Your task to perform on an android device: check android version Image 0: 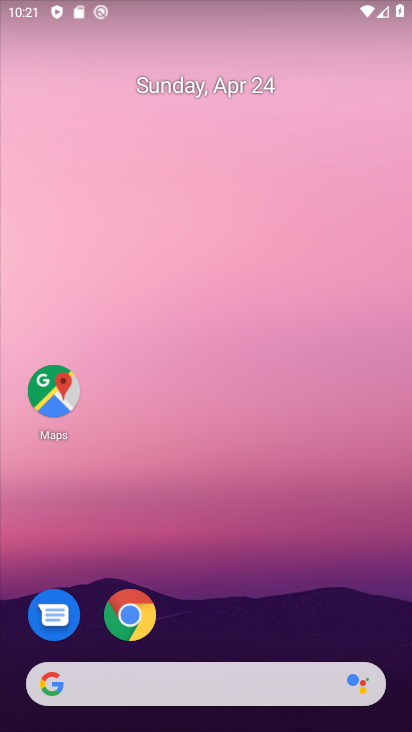
Step 0: drag from (7, 277) to (403, 302)
Your task to perform on an android device: check android version Image 1: 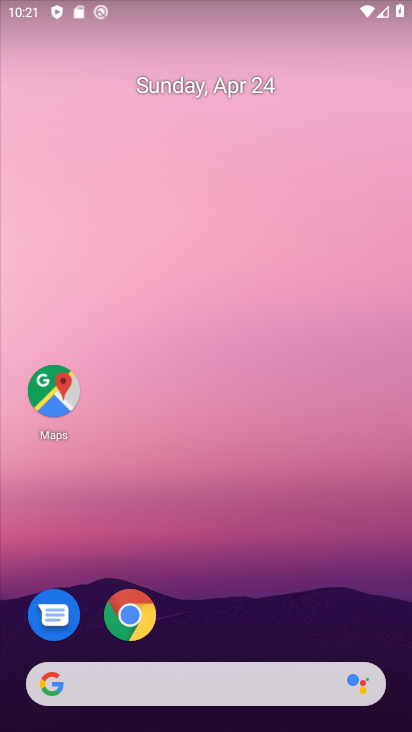
Step 1: drag from (4, 295) to (388, 300)
Your task to perform on an android device: check android version Image 2: 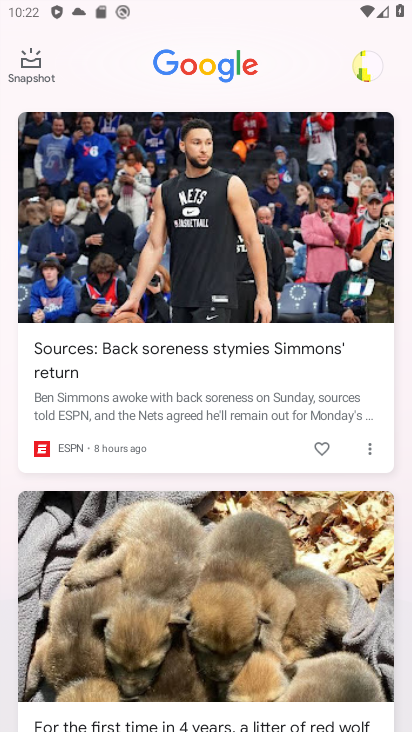
Step 2: press home button
Your task to perform on an android device: check android version Image 3: 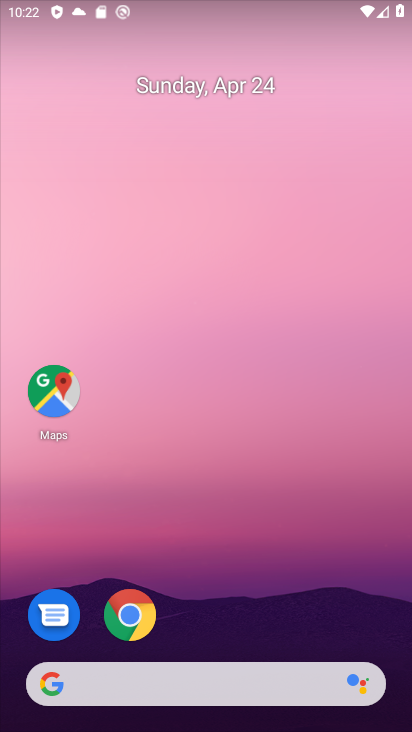
Step 3: drag from (206, 645) to (257, 62)
Your task to perform on an android device: check android version Image 4: 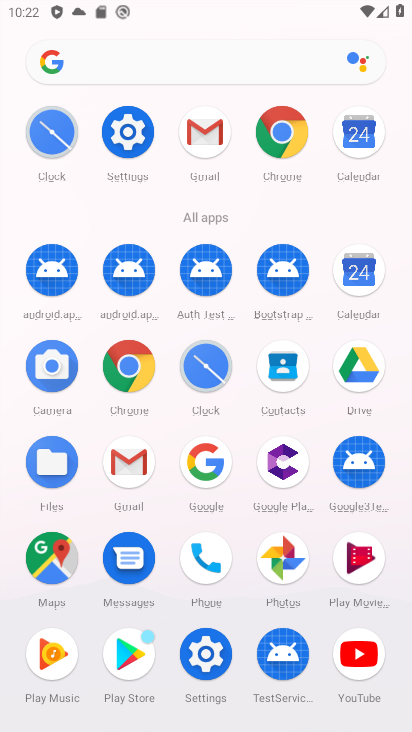
Step 4: click (125, 126)
Your task to perform on an android device: check android version Image 5: 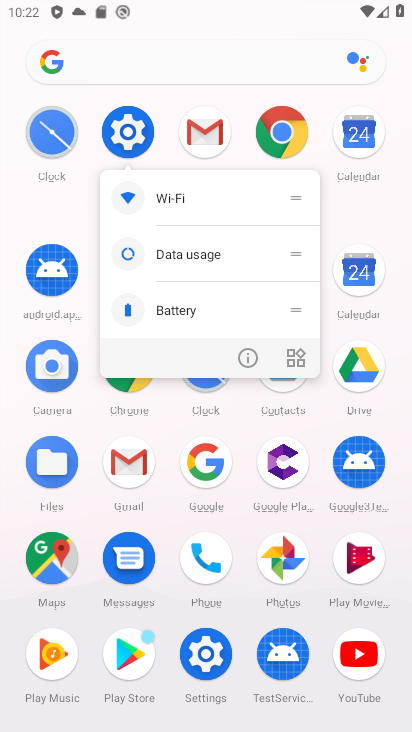
Step 5: click (123, 124)
Your task to perform on an android device: check android version Image 6: 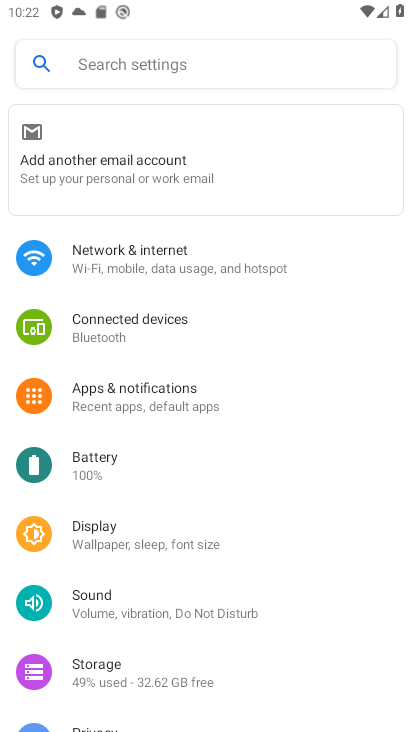
Step 6: drag from (193, 681) to (229, 140)
Your task to perform on an android device: check android version Image 7: 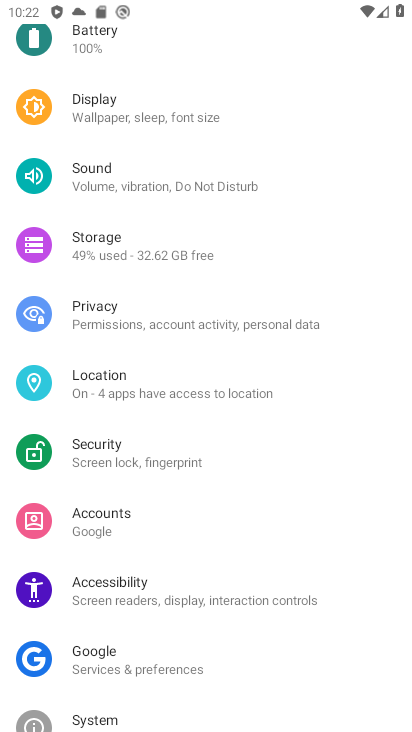
Step 7: drag from (168, 678) to (189, 177)
Your task to perform on an android device: check android version Image 8: 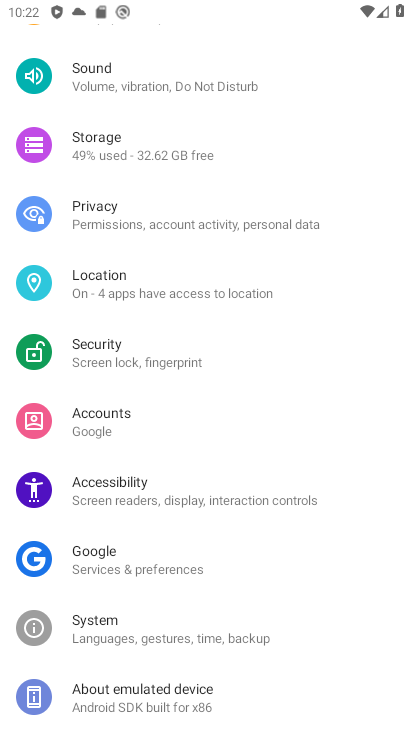
Step 8: click (220, 689)
Your task to perform on an android device: check android version Image 9: 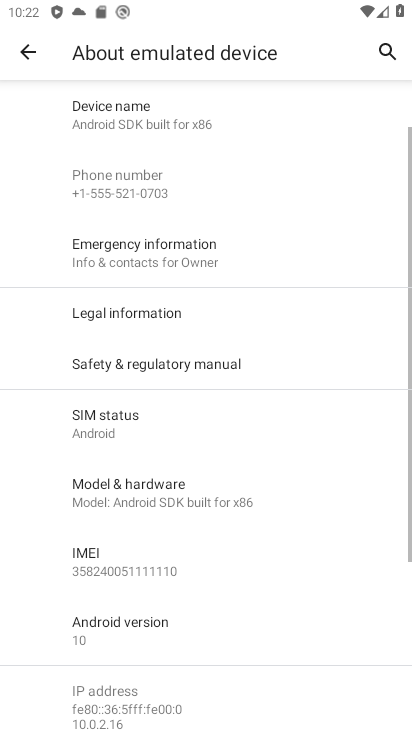
Step 9: click (135, 635)
Your task to perform on an android device: check android version Image 10: 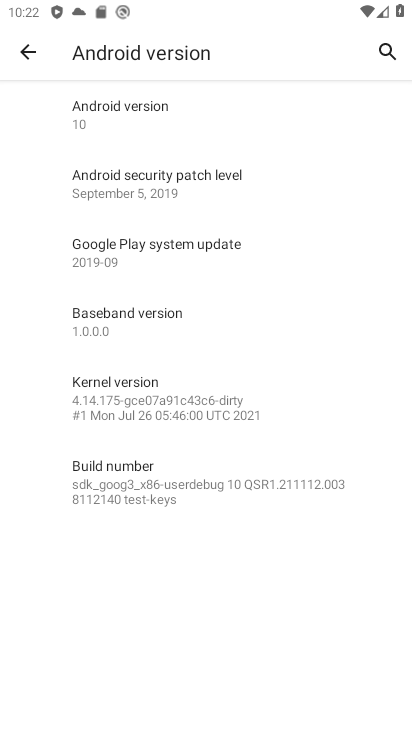
Step 10: task complete